Your task to perform on an android device: Clear all items from cart on bestbuy. Search for razer blade on bestbuy, select the first entry, and add it to the cart. Image 0: 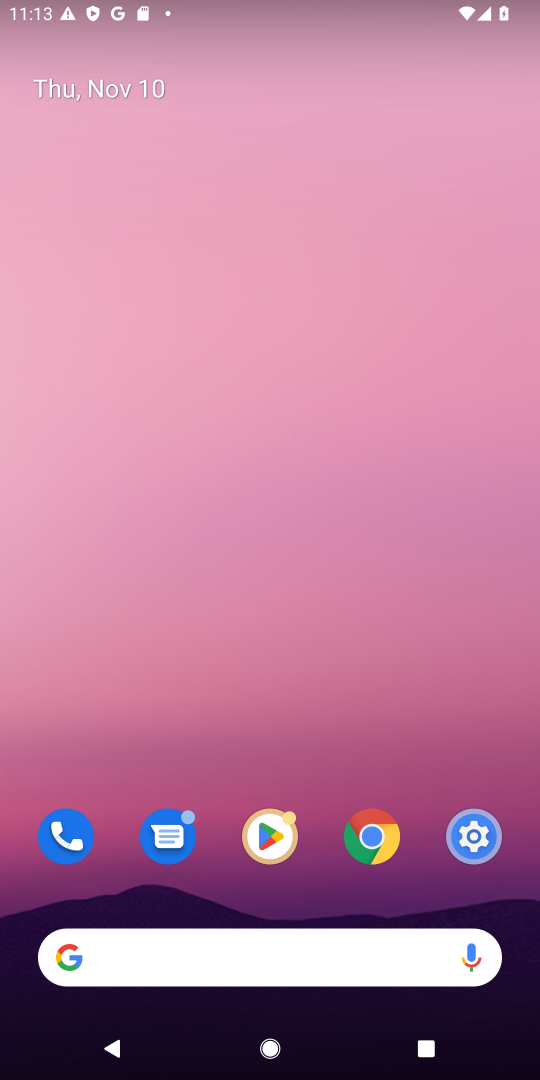
Step 0: drag from (323, 805) to (465, 113)
Your task to perform on an android device: Clear all items from cart on bestbuy. Search for razer blade on bestbuy, select the first entry, and add it to the cart. Image 1: 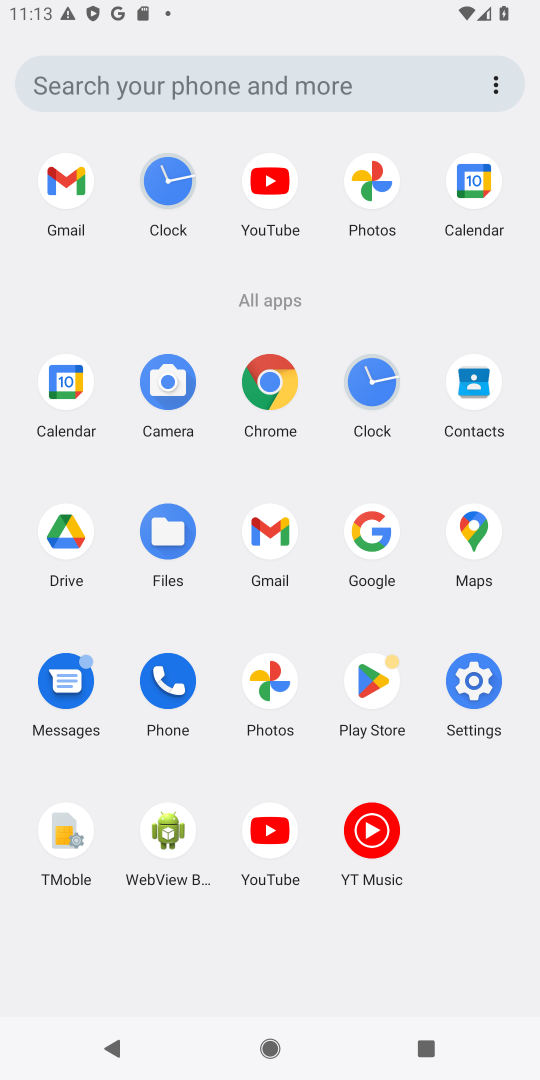
Step 1: click (279, 400)
Your task to perform on an android device: Clear all items from cart on bestbuy. Search for razer blade on bestbuy, select the first entry, and add it to the cart. Image 2: 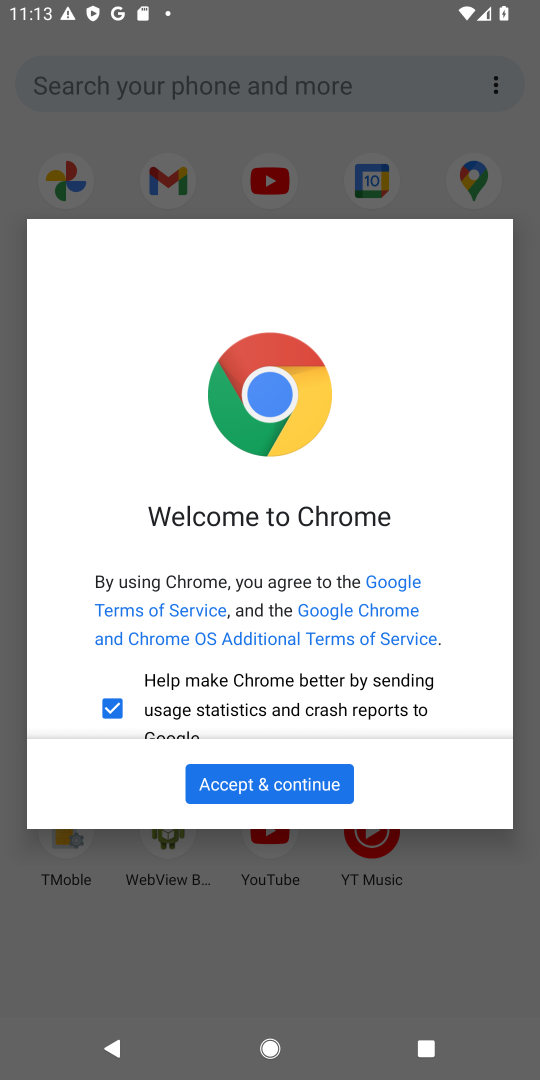
Step 2: click (281, 771)
Your task to perform on an android device: Clear all items from cart on bestbuy. Search for razer blade on bestbuy, select the first entry, and add it to the cart. Image 3: 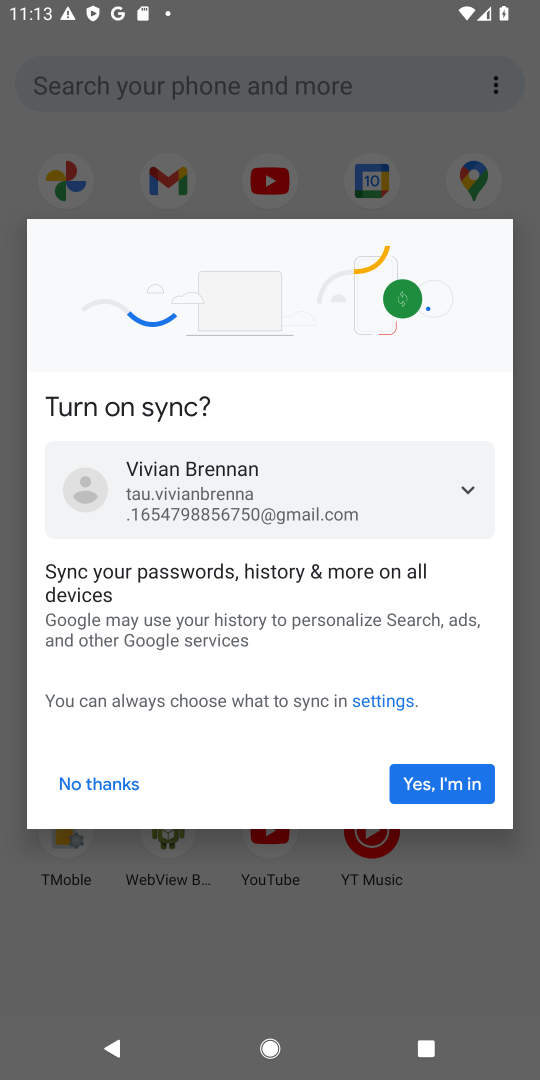
Step 3: click (459, 801)
Your task to perform on an android device: Clear all items from cart on bestbuy. Search for razer blade on bestbuy, select the first entry, and add it to the cart. Image 4: 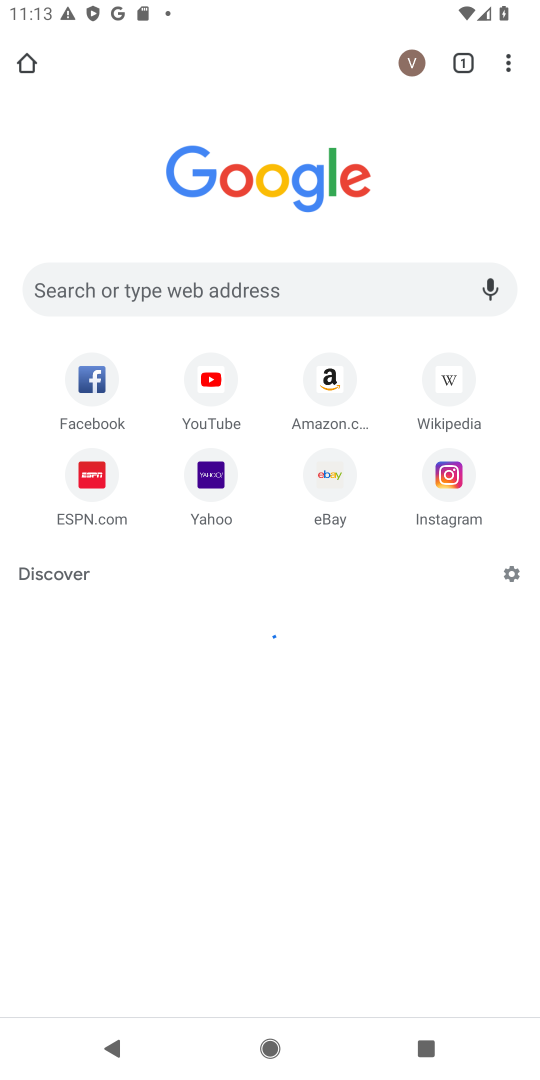
Step 4: click (220, 298)
Your task to perform on an android device: Clear all items from cart on bestbuy. Search for razer blade on bestbuy, select the first entry, and add it to the cart. Image 5: 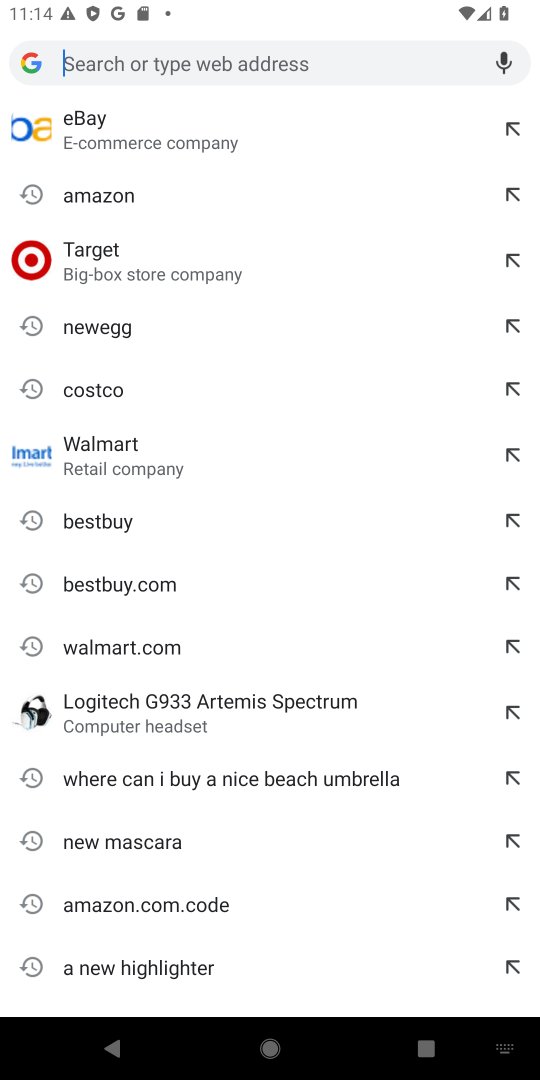
Step 5: type "bestbuy"
Your task to perform on an android device: Clear all items from cart on bestbuy. Search for razer blade on bestbuy, select the first entry, and add it to the cart. Image 6: 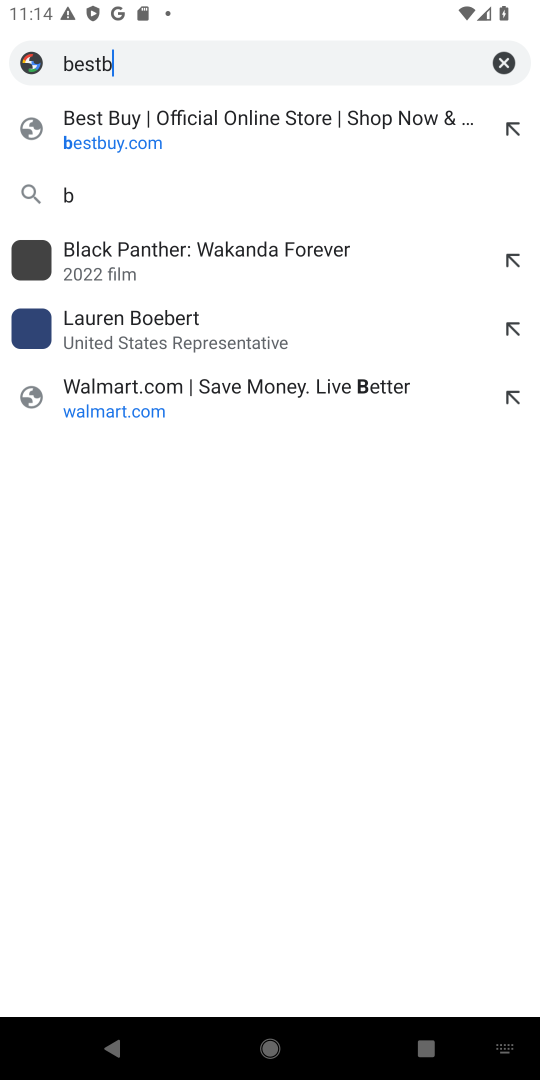
Step 6: press enter
Your task to perform on an android device: Clear all items from cart on bestbuy. Search for razer blade on bestbuy, select the first entry, and add it to the cart. Image 7: 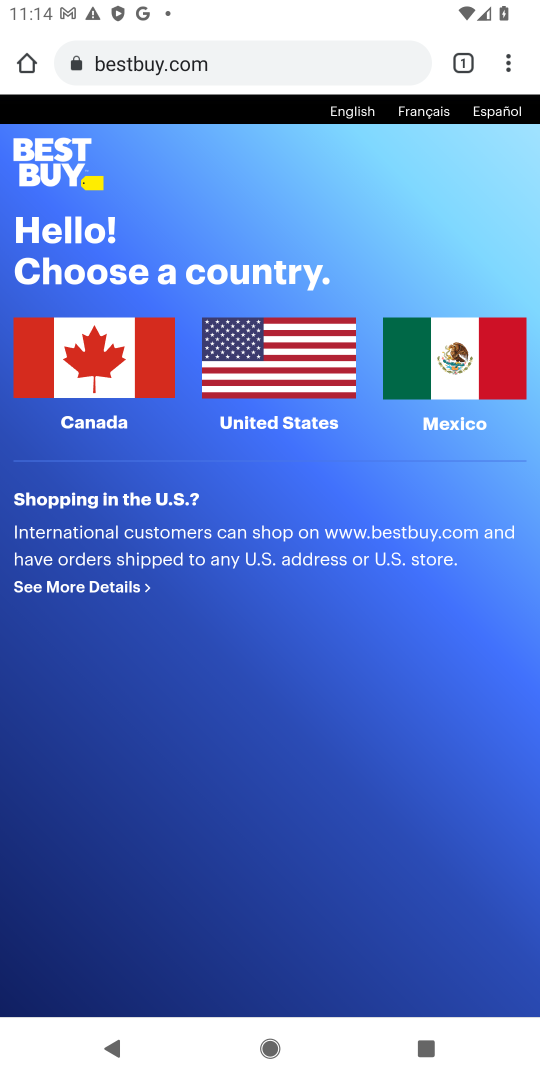
Step 7: click (98, 373)
Your task to perform on an android device: Clear all items from cart on bestbuy. Search for razer blade on bestbuy, select the first entry, and add it to the cart. Image 8: 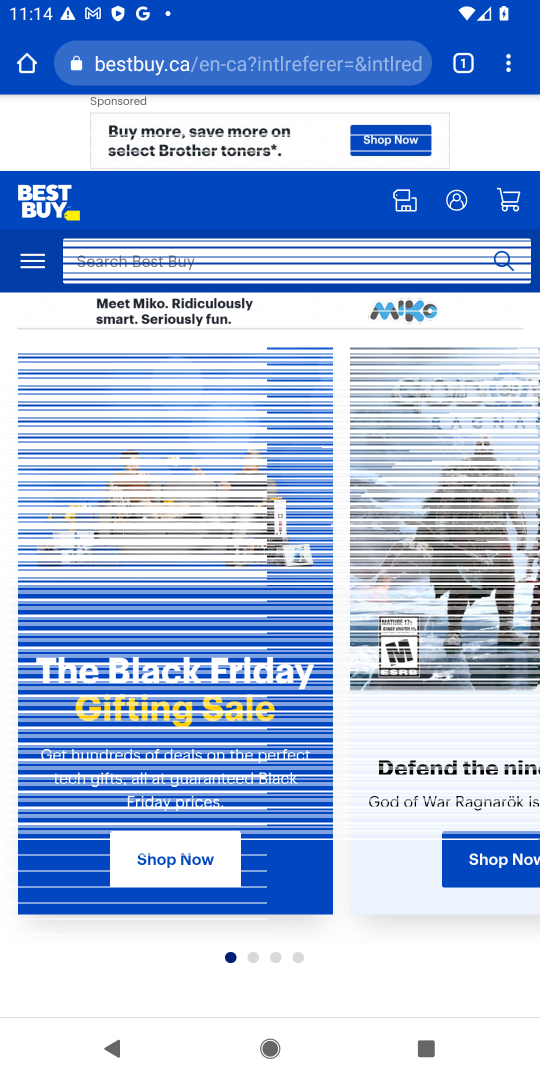
Step 8: click (504, 199)
Your task to perform on an android device: Clear all items from cart on bestbuy. Search for razer blade on bestbuy, select the first entry, and add it to the cart. Image 9: 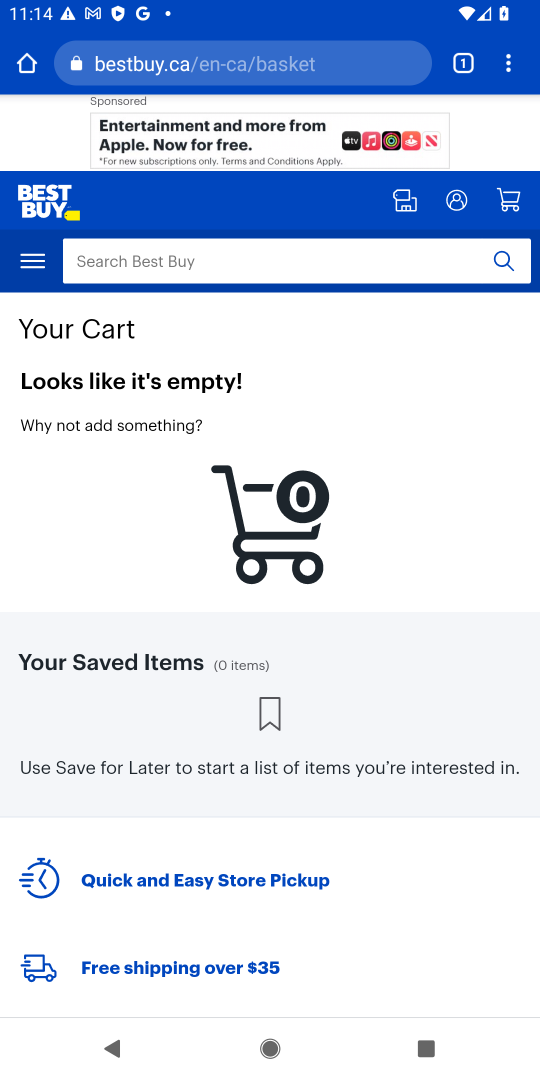
Step 9: click (173, 267)
Your task to perform on an android device: Clear all items from cart on bestbuy. Search for razer blade on bestbuy, select the first entry, and add it to the cart. Image 10: 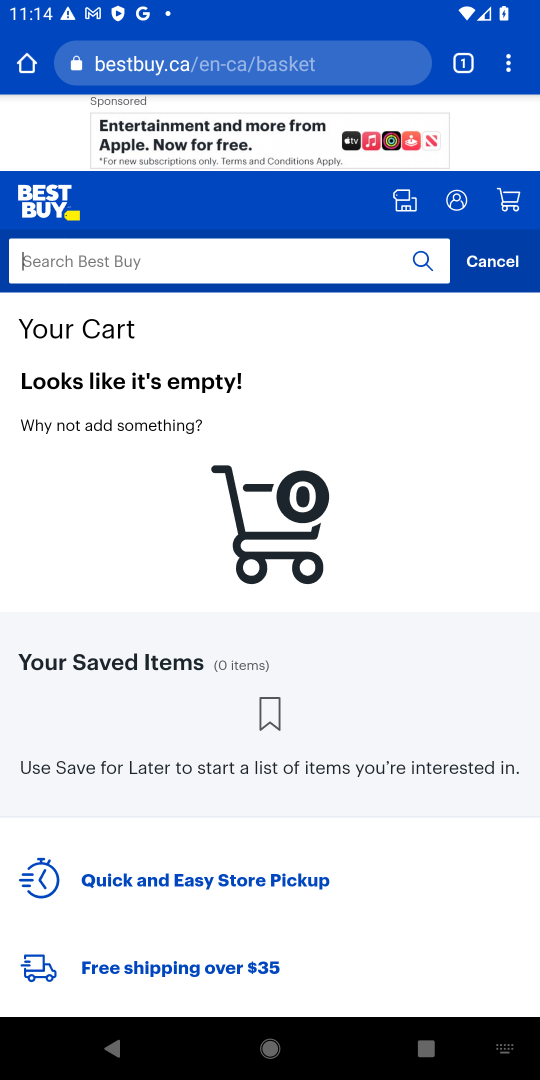
Step 10: type " razer blade"
Your task to perform on an android device: Clear all items from cart on bestbuy. Search for razer blade on bestbuy, select the first entry, and add it to the cart. Image 11: 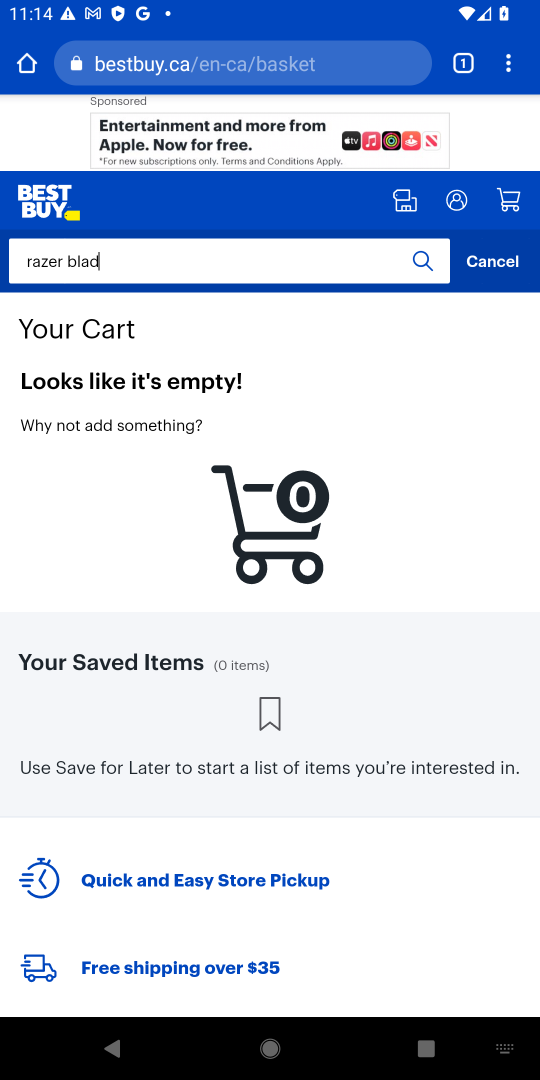
Step 11: press enter
Your task to perform on an android device: Clear all items from cart on bestbuy. Search for razer blade on bestbuy, select the first entry, and add it to the cart. Image 12: 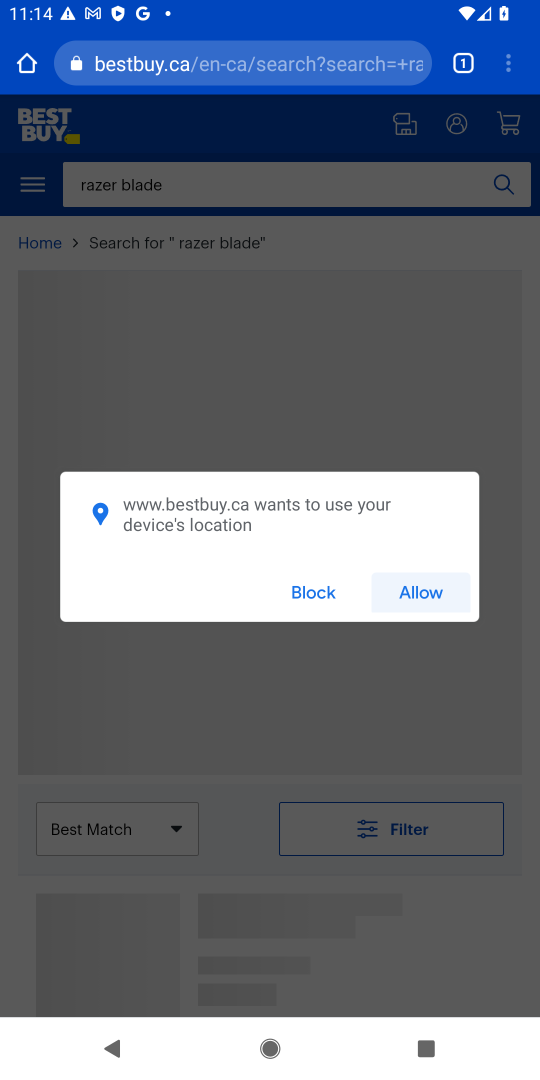
Step 12: click (443, 590)
Your task to perform on an android device: Clear all items from cart on bestbuy. Search for razer blade on bestbuy, select the first entry, and add it to the cart. Image 13: 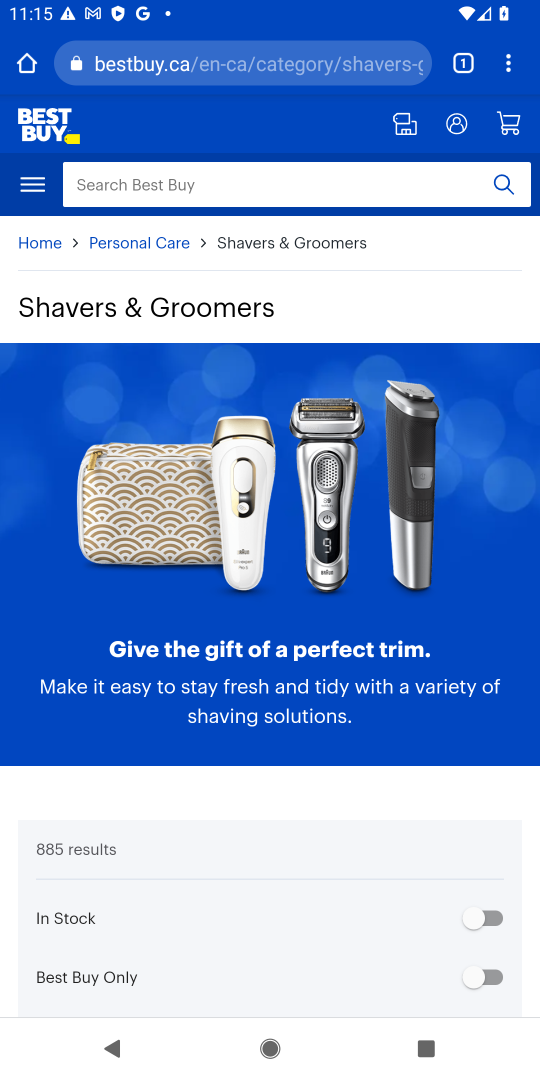
Step 13: drag from (332, 660) to (484, 229)
Your task to perform on an android device: Clear all items from cart on bestbuy. Search for razer blade on bestbuy, select the first entry, and add it to the cart. Image 14: 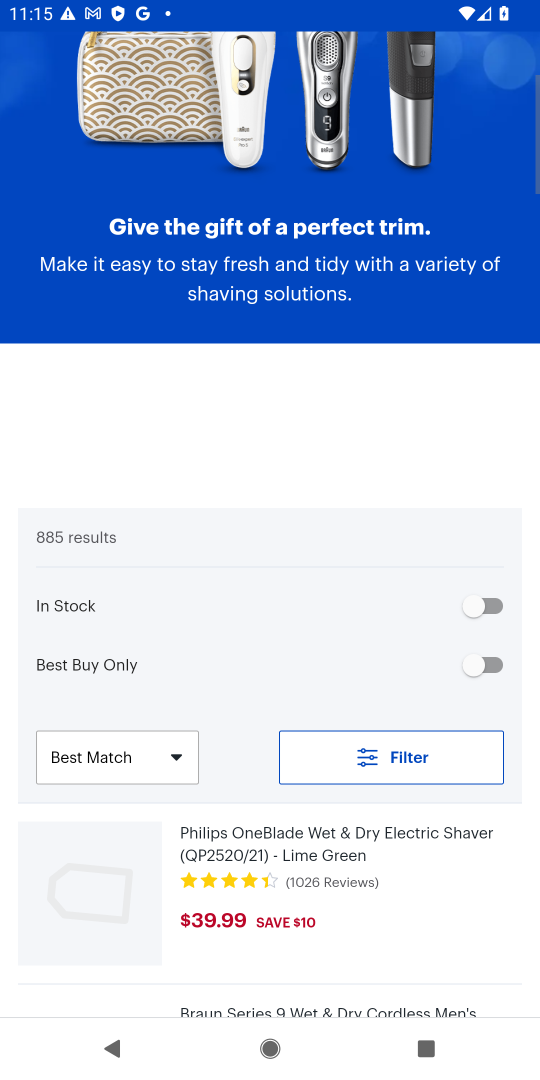
Step 14: drag from (420, 542) to (501, 201)
Your task to perform on an android device: Clear all items from cart on bestbuy. Search for razer blade on bestbuy, select the first entry, and add it to the cart. Image 15: 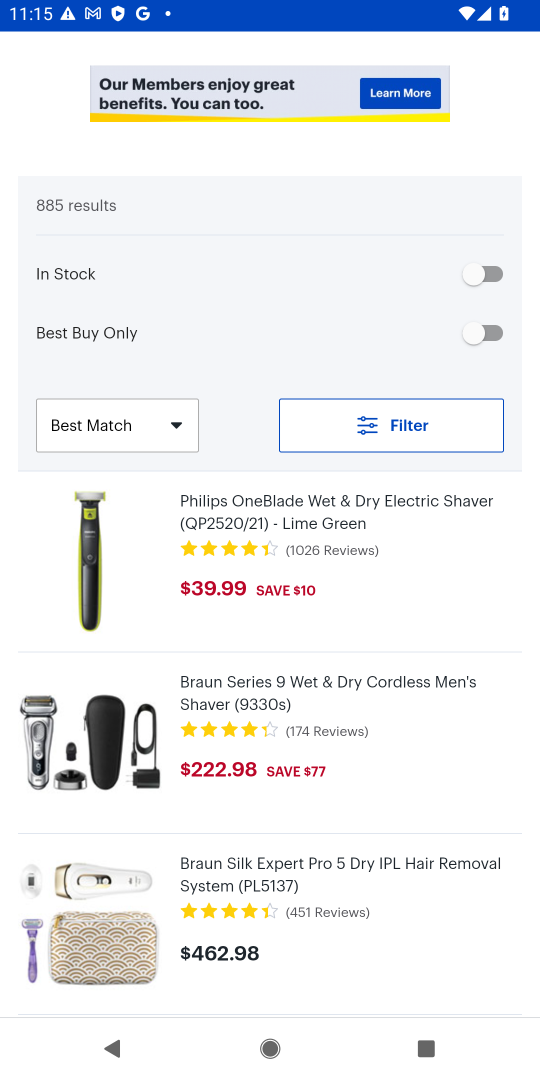
Step 15: click (262, 518)
Your task to perform on an android device: Clear all items from cart on bestbuy. Search for razer blade on bestbuy, select the first entry, and add it to the cart. Image 16: 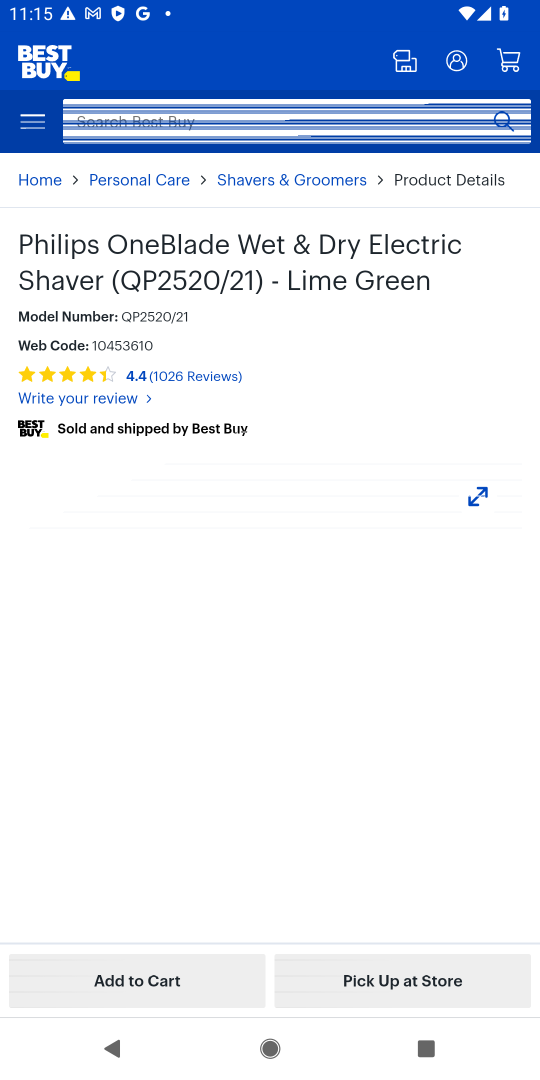
Step 16: drag from (403, 762) to (415, 458)
Your task to perform on an android device: Clear all items from cart on bestbuy. Search for razer blade on bestbuy, select the first entry, and add it to the cart. Image 17: 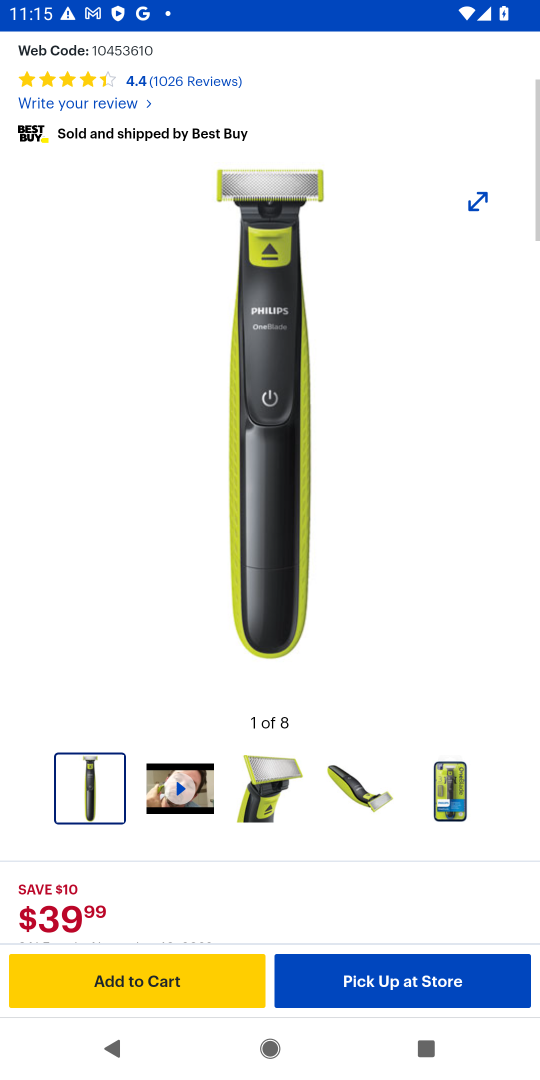
Step 17: click (118, 971)
Your task to perform on an android device: Clear all items from cart on bestbuy. Search for razer blade on bestbuy, select the first entry, and add it to the cart. Image 18: 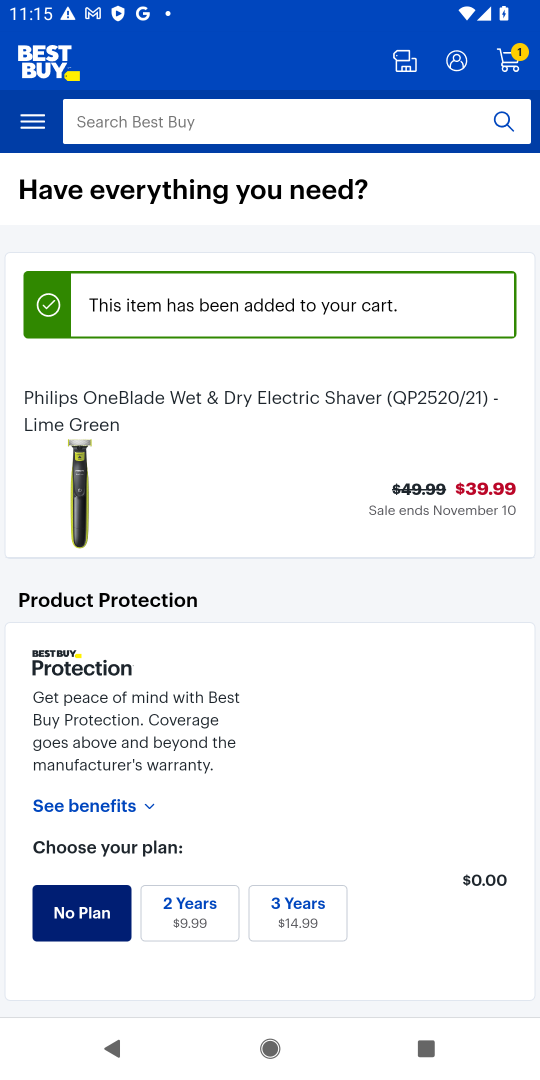
Step 18: task complete